Your task to perform on an android device: toggle data saver in the chrome app Image 0: 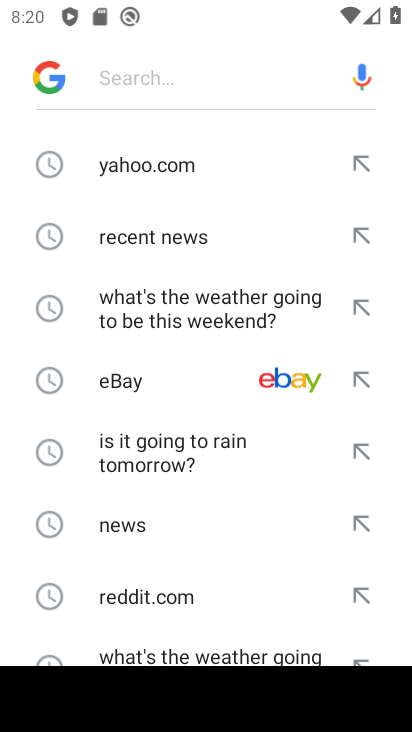
Step 0: press home button
Your task to perform on an android device: toggle data saver in the chrome app Image 1: 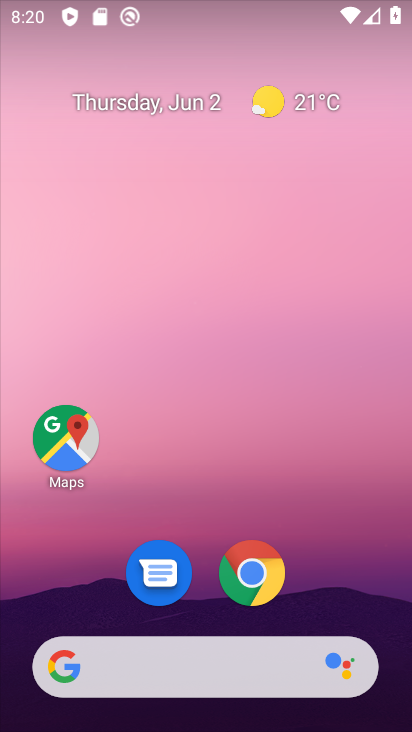
Step 1: click (260, 573)
Your task to perform on an android device: toggle data saver in the chrome app Image 2: 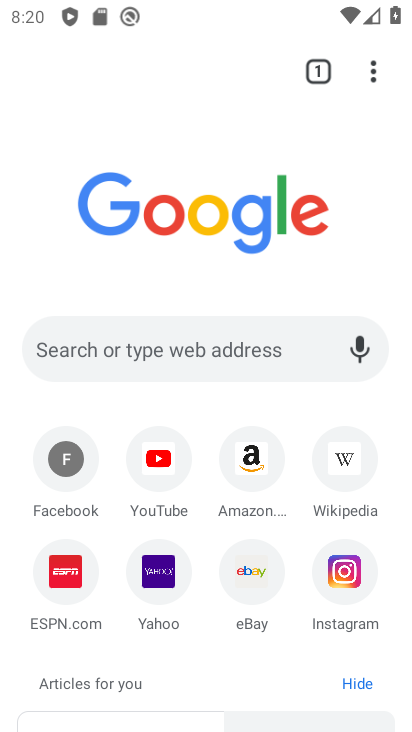
Step 2: click (368, 78)
Your task to perform on an android device: toggle data saver in the chrome app Image 3: 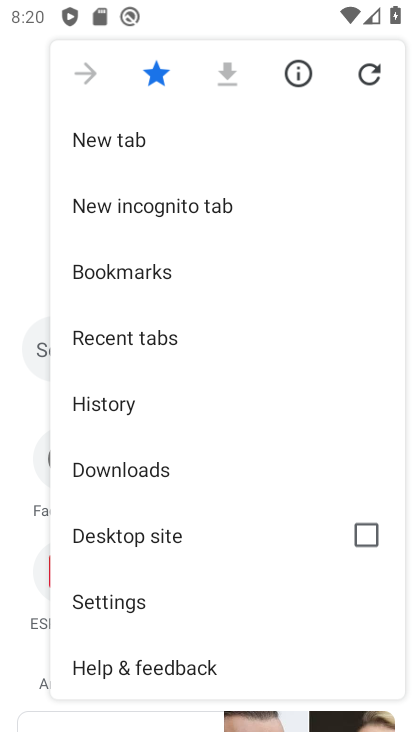
Step 3: click (127, 612)
Your task to perform on an android device: toggle data saver in the chrome app Image 4: 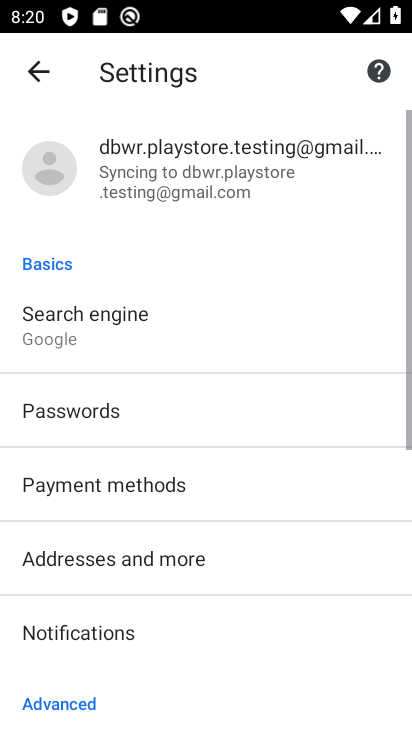
Step 4: drag from (149, 622) to (152, 183)
Your task to perform on an android device: toggle data saver in the chrome app Image 5: 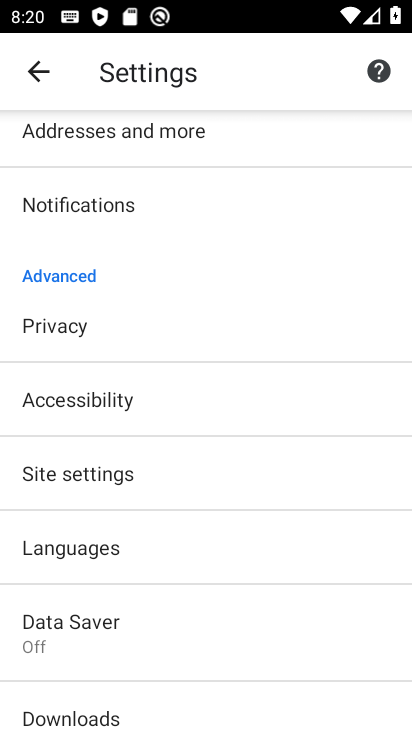
Step 5: click (91, 643)
Your task to perform on an android device: toggle data saver in the chrome app Image 6: 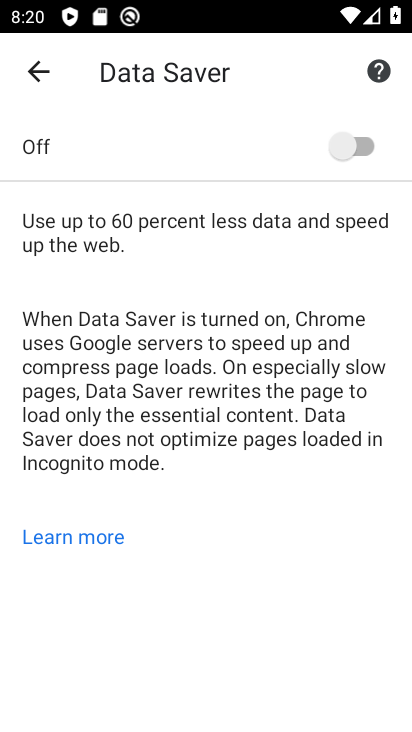
Step 6: click (365, 144)
Your task to perform on an android device: toggle data saver in the chrome app Image 7: 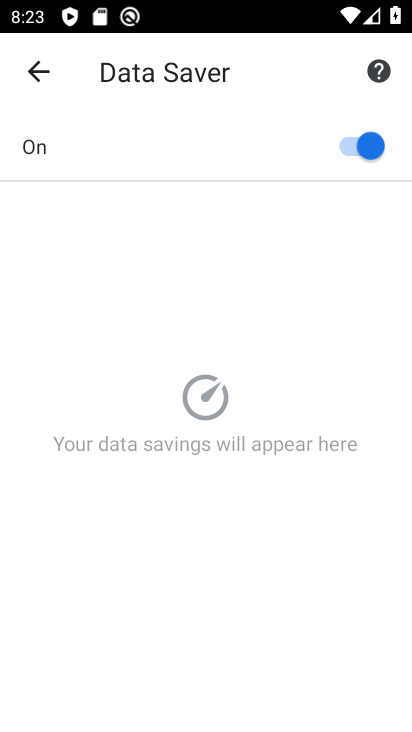
Step 7: task complete